Your task to perform on an android device: turn pop-ups on in chrome Image 0: 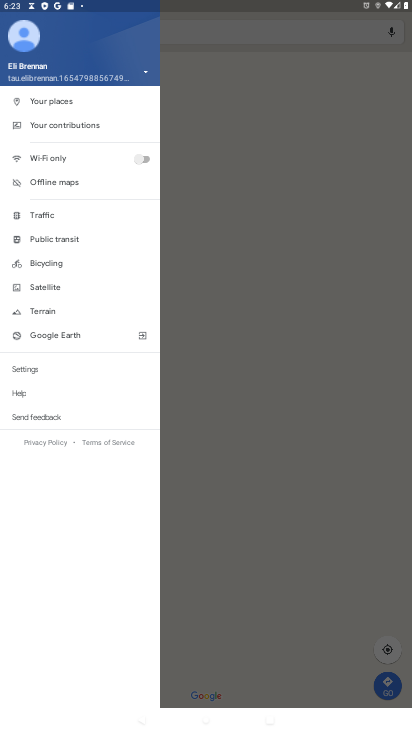
Step 0: press home button
Your task to perform on an android device: turn pop-ups on in chrome Image 1: 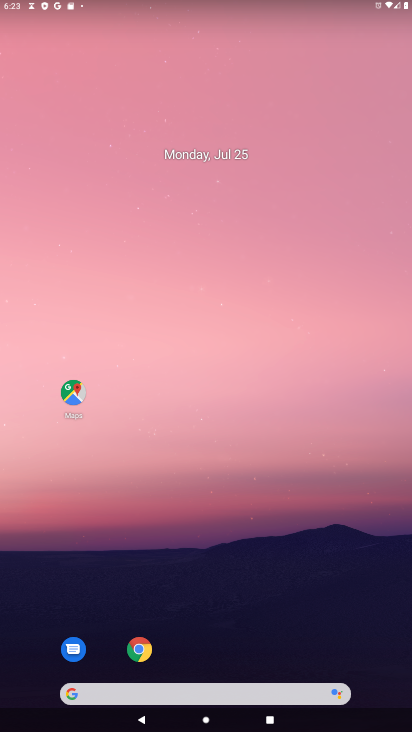
Step 1: drag from (187, 663) to (409, 267)
Your task to perform on an android device: turn pop-ups on in chrome Image 2: 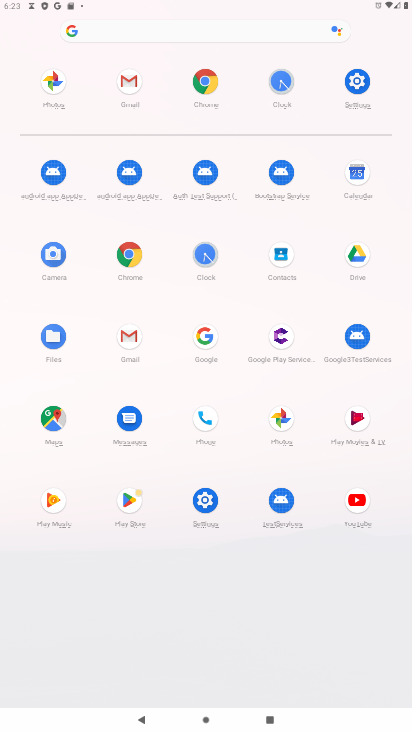
Step 2: click (124, 249)
Your task to perform on an android device: turn pop-ups on in chrome Image 3: 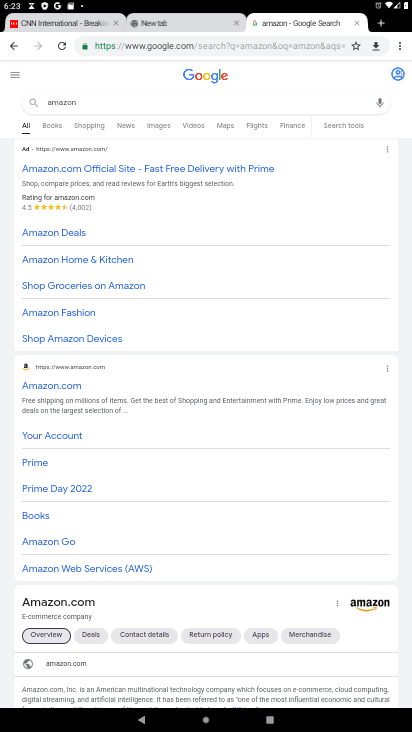
Step 3: drag from (396, 47) to (323, 280)
Your task to perform on an android device: turn pop-ups on in chrome Image 4: 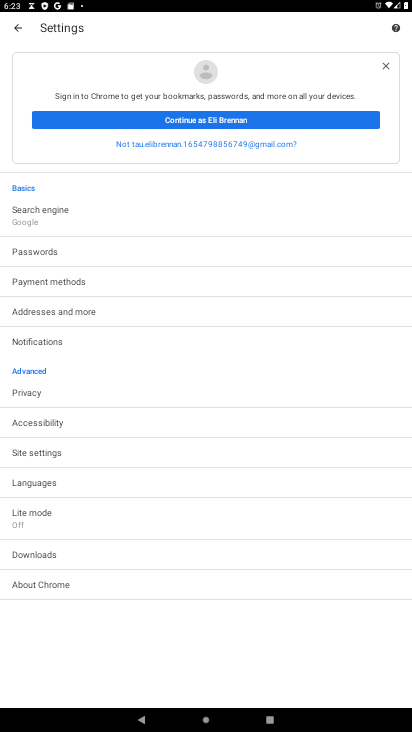
Step 4: click (75, 453)
Your task to perform on an android device: turn pop-ups on in chrome Image 5: 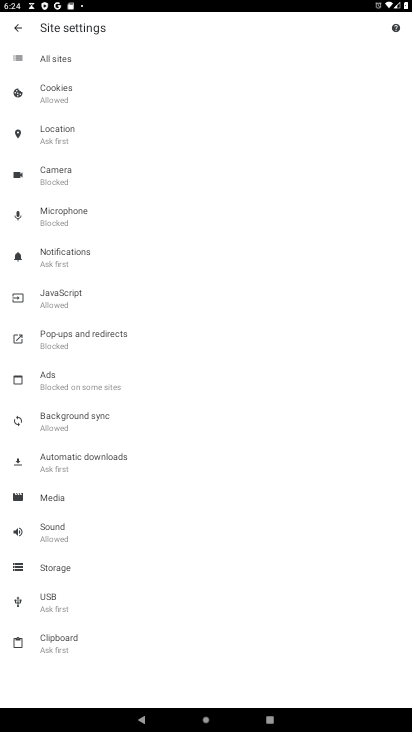
Step 5: click (66, 339)
Your task to perform on an android device: turn pop-ups on in chrome Image 6: 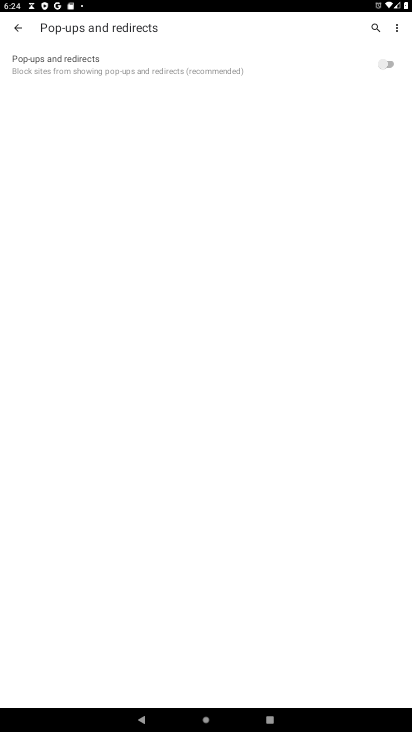
Step 6: click (396, 55)
Your task to perform on an android device: turn pop-ups on in chrome Image 7: 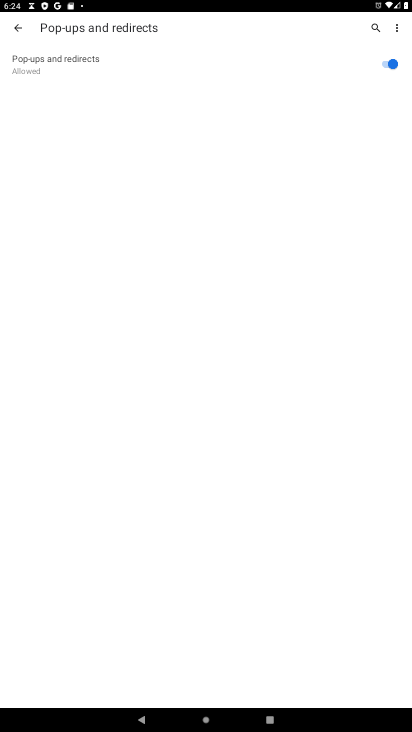
Step 7: task complete